Your task to perform on an android device: Go to display settings Image 0: 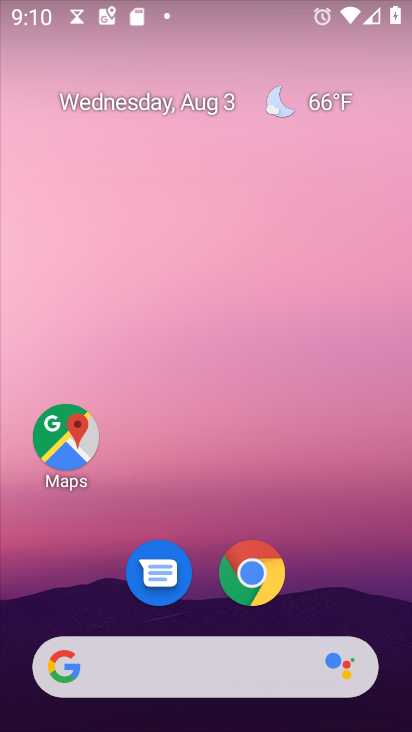
Step 0: drag from (342, 628) to (297, 23)
Your task to perform on an android device: Go to display settings Image 1: 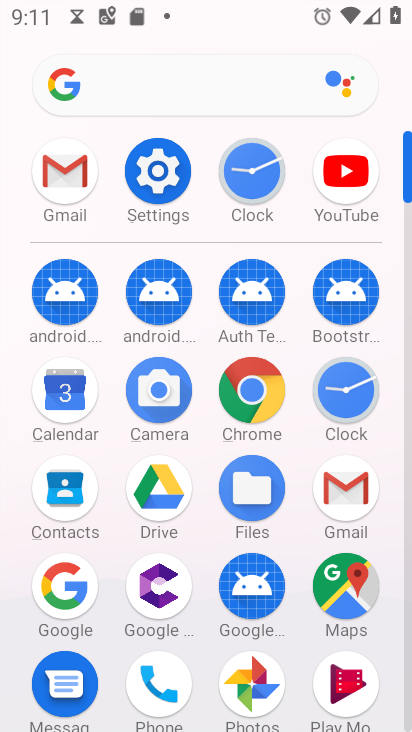
Step 1: click (157, 179)
Your task to perform on an android device: Go to display settings Image 2: 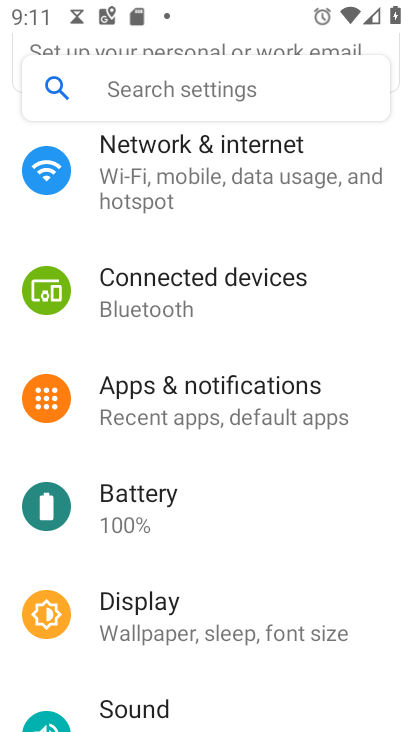
Step 2: click (145, 634)
Your task to perform on an android device: Go to display settings Image 3: 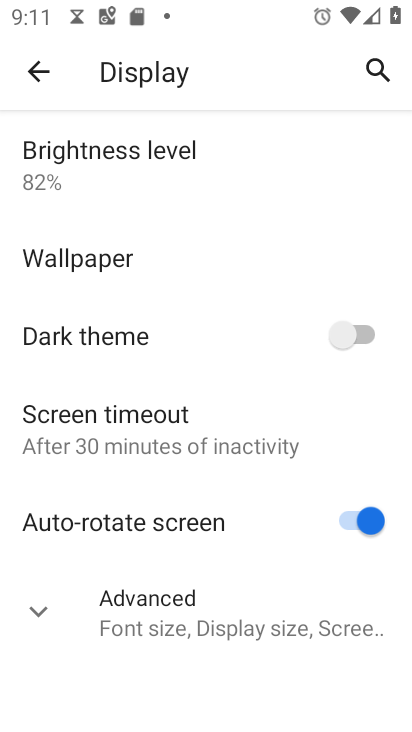
Step 3: task complete